Your task to perform on an android device: set default search engine in the chrome app Image 0: 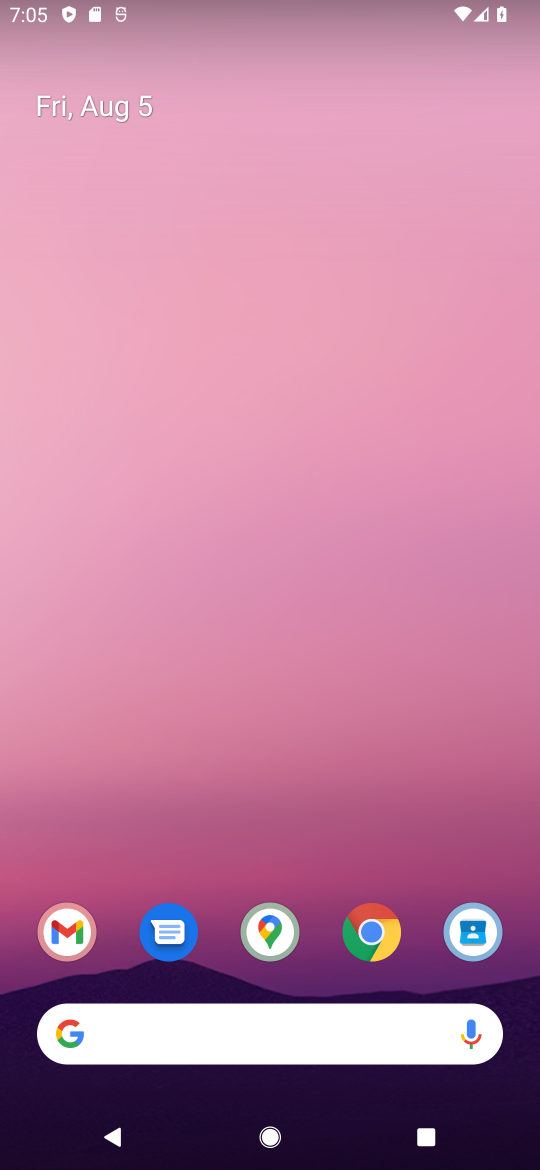
Step 0: drag from (365, 839) to (274, 105)
Your task to perform on an android device: set default search engine in the chrome app Image 1: 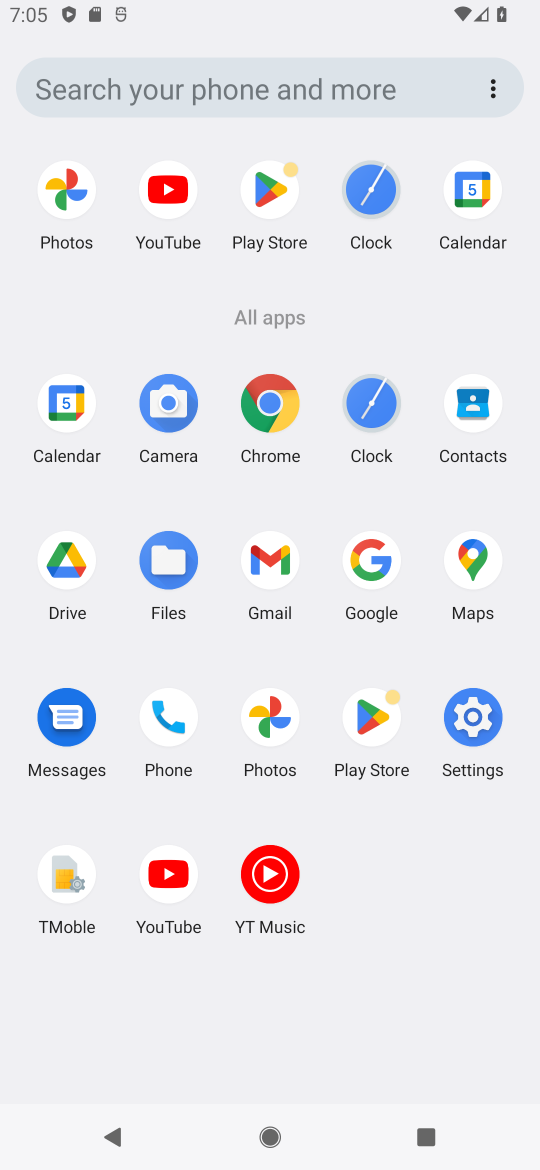
Step 1: click (272, 394)
Your task to perform on an android device: set default search engine in the chrome app Image 2: 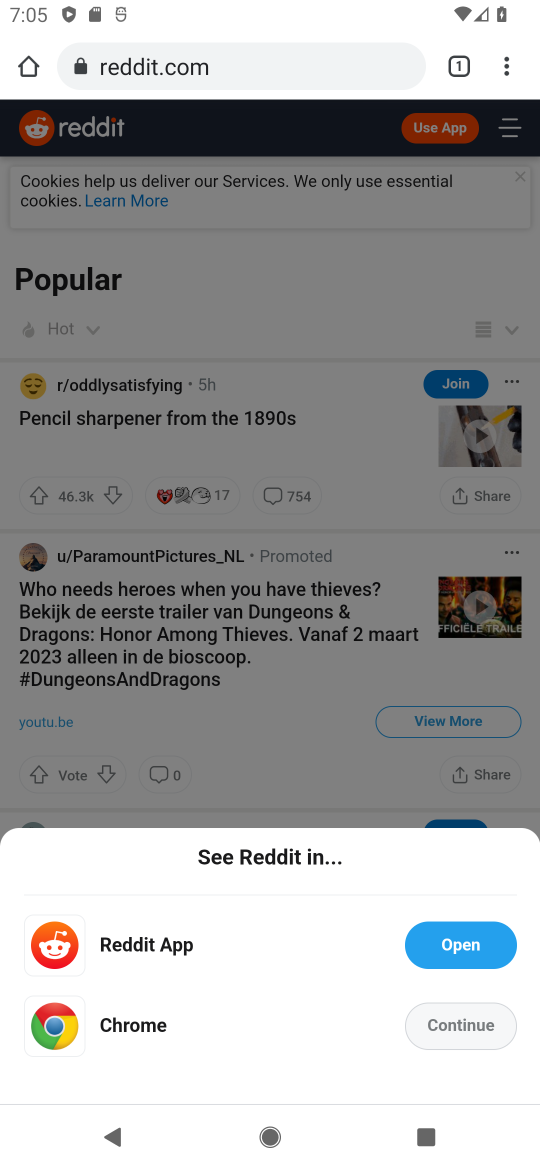
Step 2: click (463, 214)
Your task to perform on an android device: set default search engine in the chrome app Image 3: 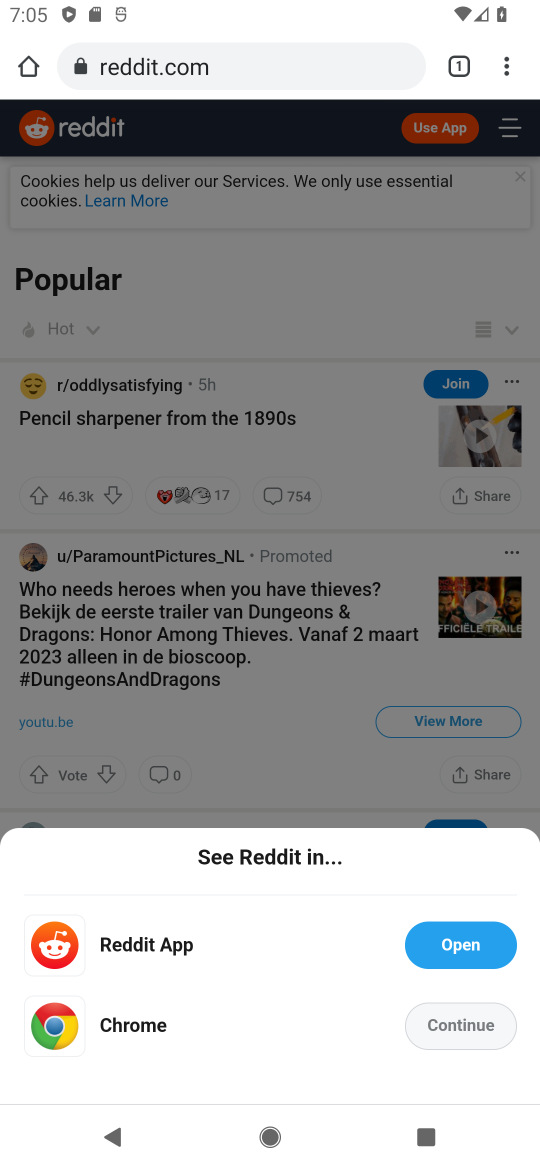
Step 3: drag from (514, 58) to (342, 779)
Your task to perform on an android device: set default search engine in the chrome app Image 4: 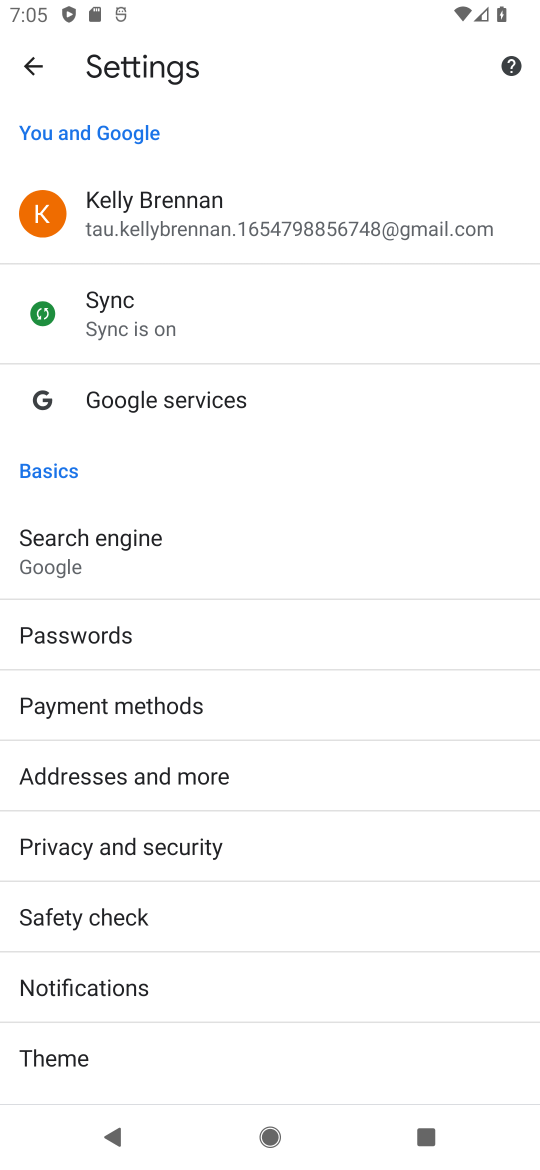
Step 4: click (128, 553)
Your task to perform on an android device: set default search engine in the chrome app Image 5: 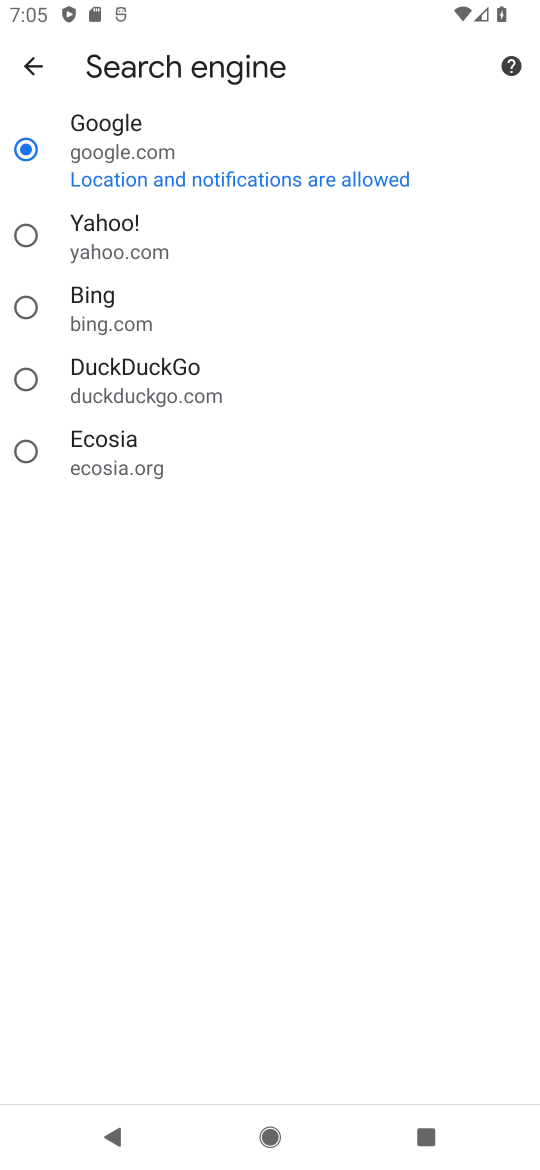
Step 5: task complete